Your task to perform on an android device: Open ESPN.com Image 0: 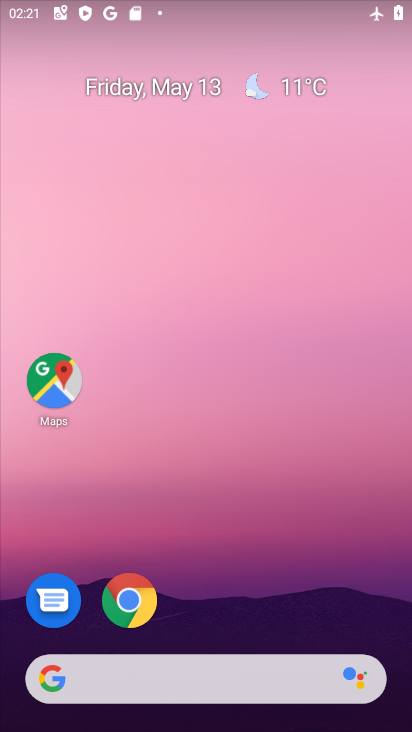
Step 0: drag from (179, 633) to (224, 177)
Your task to perform on an android device: Open ESPN.com Image 1: 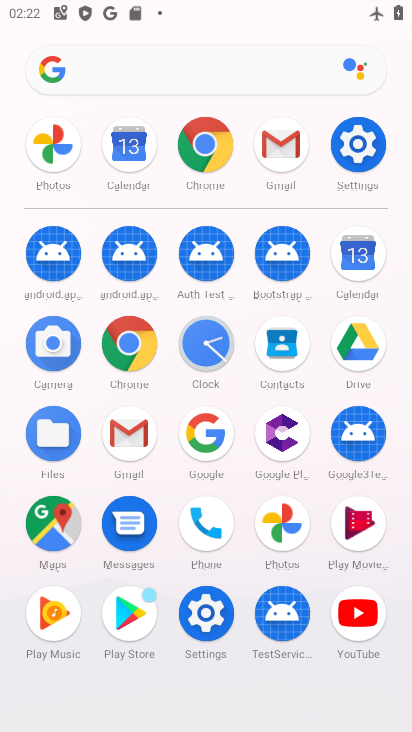
Step 1: click (182, 64)
Your task to perform on an android device: Open ESPN.com Image 2: 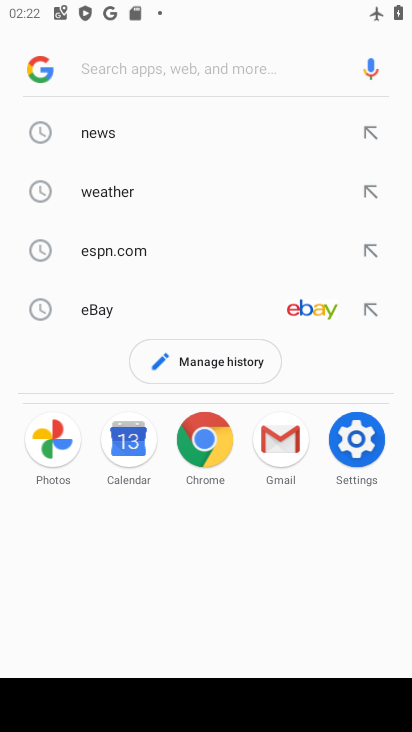
Step 2: click (151, 265)
Your task to perform on an android device: Open ESPN.com Image 3: 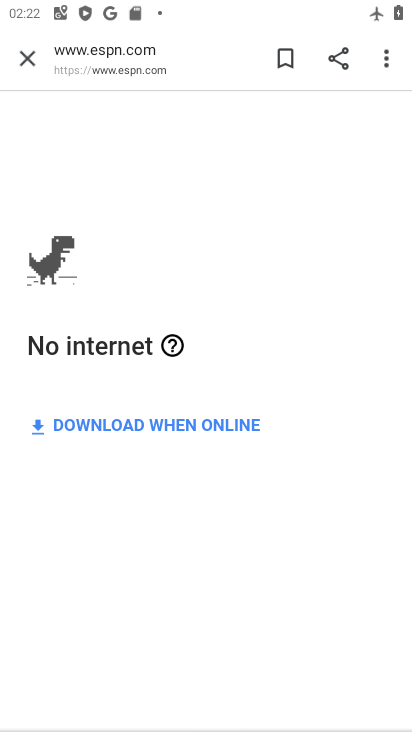
Step 3: task complete